Your task to perform on an android device: Play the last video I watched on Youtube Image 0: 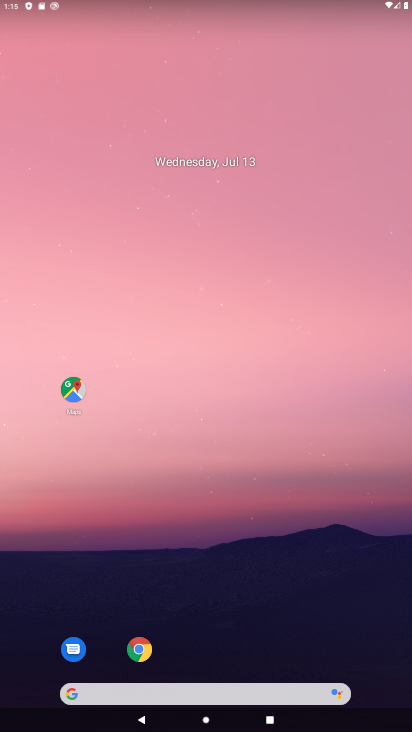
Step 0: drag from (190, 680) to (358, 55)
Your task to perform on an android device: Play the last video I watched on Youtube Image 1: 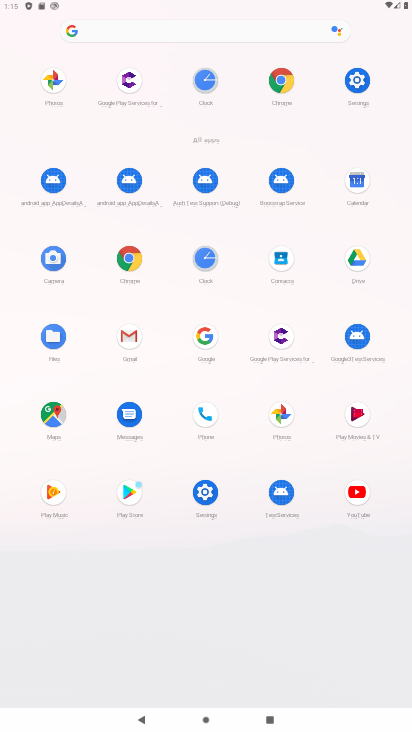
Step 1: click (364, 484)
Your task to perform on an android device: Play the last video I watched on Youtube Image 2: 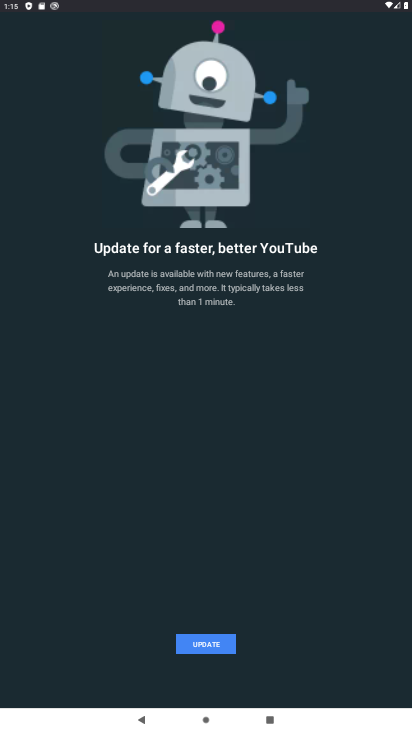
Step 2: click (210, 655)
Your task to perform on an android device: Play the last video I watched on Youtube Image 3: 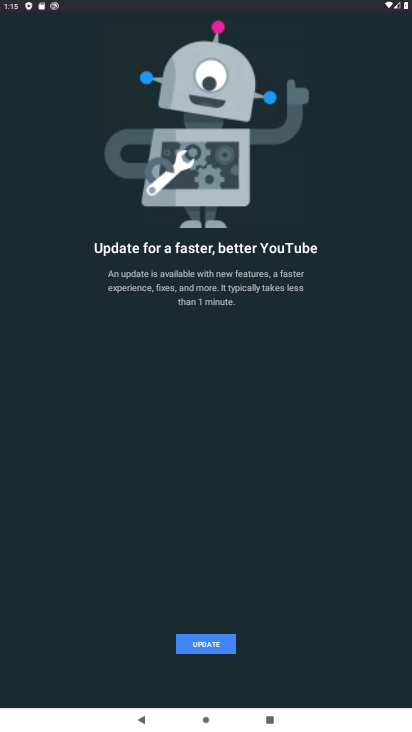
Step 3: click (211, 647)
Your task to perform on an android device: Play the last video I watched on Youtube Image 4: 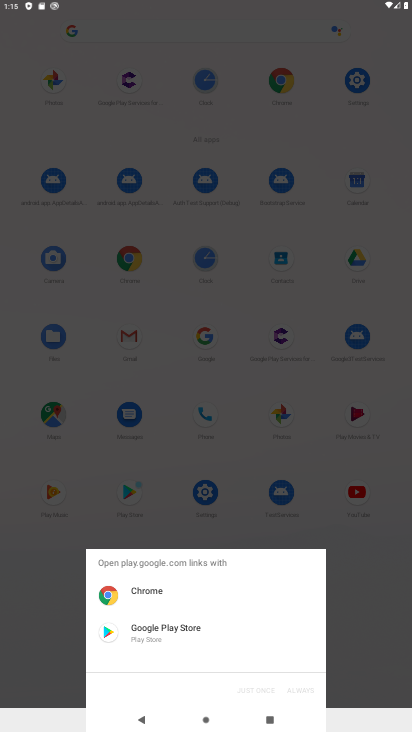
Step 4: click (250, 645)
Your task to perform on an android device: Play the last video I watched on Youtube Image 5: 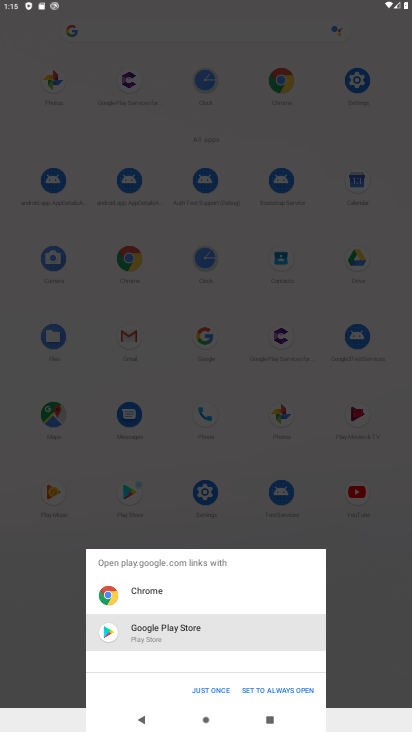
Step 5: click (220, 692)
Your task to perform on an android device: Play the last video I watched on Youtube Image 6: 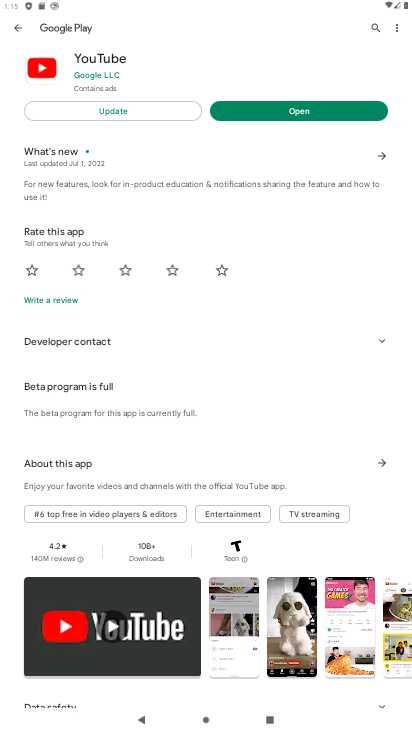
Step 6: click (126, 115)
Your task to perform on an android device: Play the last video I watched on Youtube Image 7: 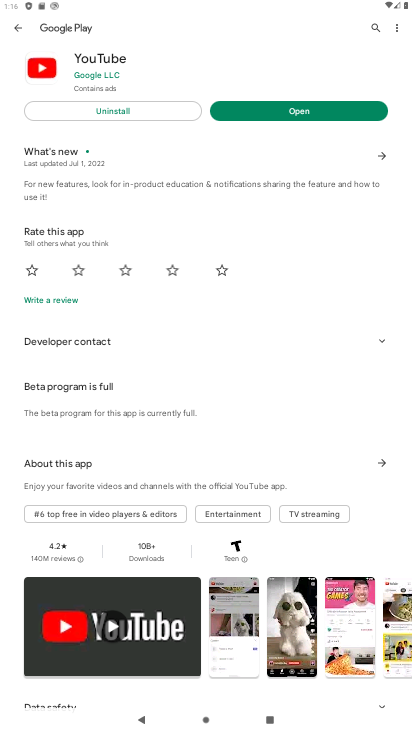
Step 7: click (307, 111)
Your task to perform on an android device: Play the last video I watched on Youtube Image 8: 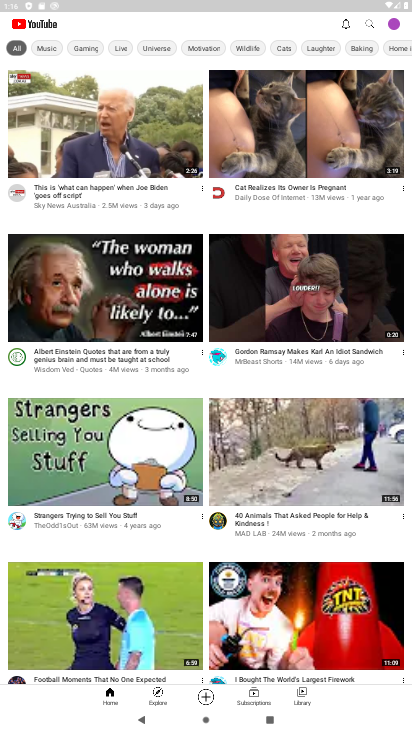
Step 8: click (301, 696)
Your task to perform on an android device: Play the last video I watched on Youtube Image 9: 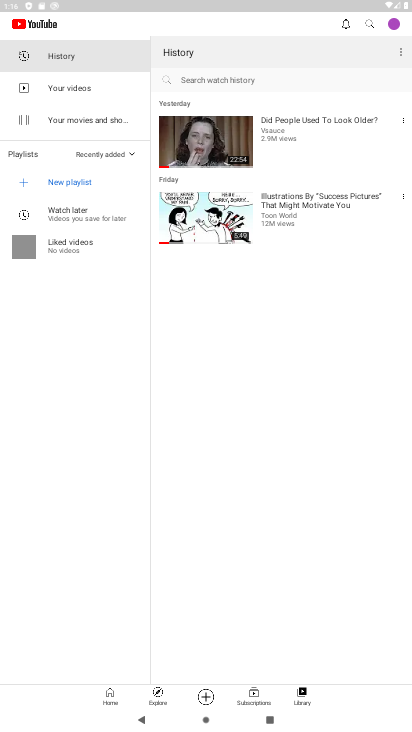
Step 9: click (232, 131)
Your task to perform on an android device: Play the last video I watched on Youtube Image 10: 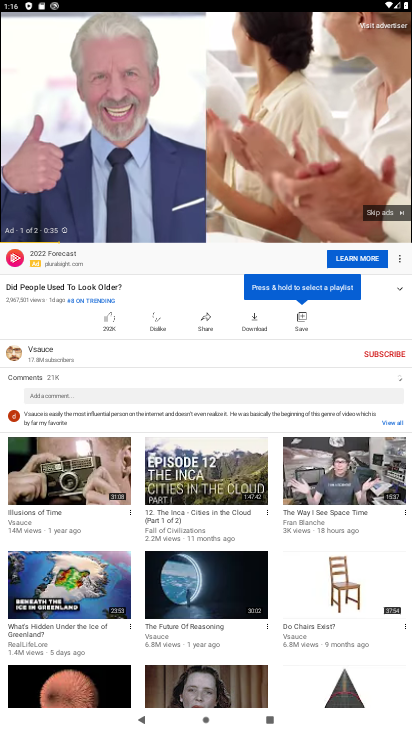
Step 10: task complete